Your task to perform on an android device: turn off data saver in the chrome app Image 0: 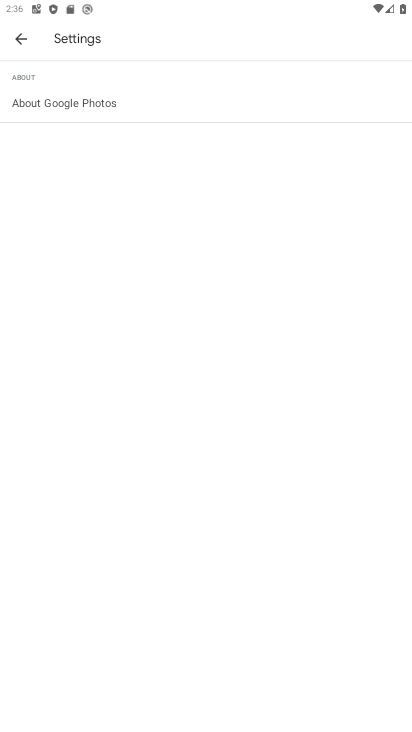
Step 0: press home button
Your task to perform on an android device: turn off data saver in the chrome app Image 1: 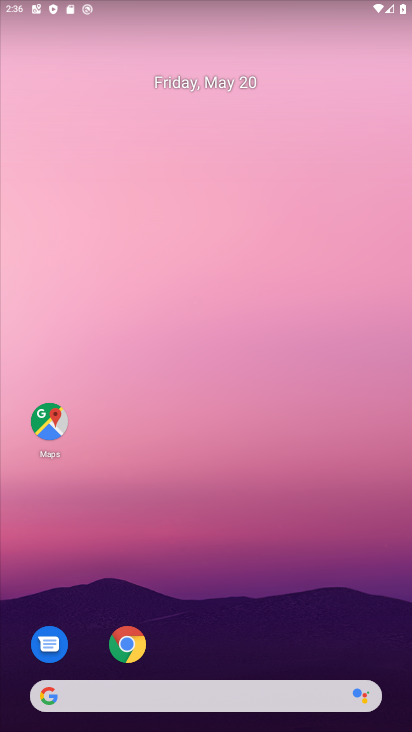
Step 1: click (134, 653)
Your task to perform on an android device: turn off data saver in the chrome app Image 2: 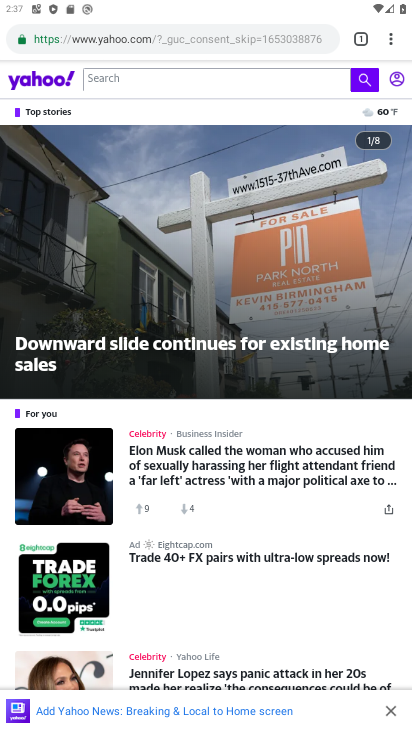
Step 2: click (387, 38)
Your task to perform on an android device: turn off data saver in the chrome app Image 3: 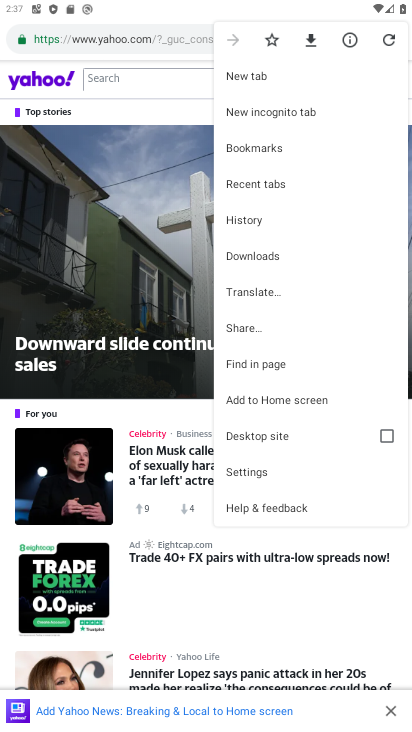
Step 3: click (282, 467)
Your task to perform on an android device: turn off data saver in the chrome app Image 4: 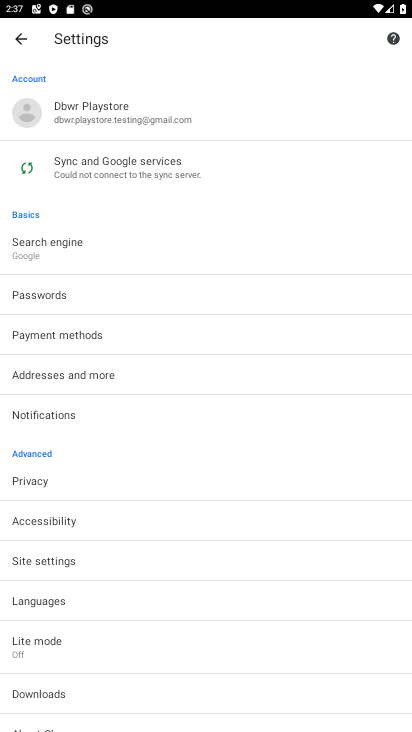
Step 4: click (94, 635)
Your task to perform on an android device: turn off data saver in the chrome app Image 5: 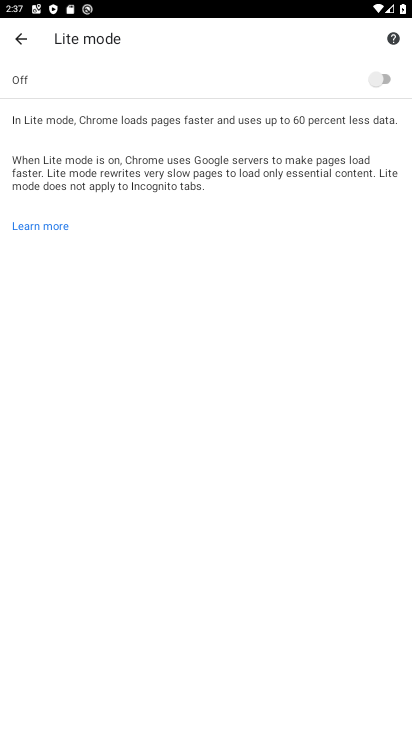
Step 5: task complete